Your task to perform on an android device: Do I have any events today? Image 0: 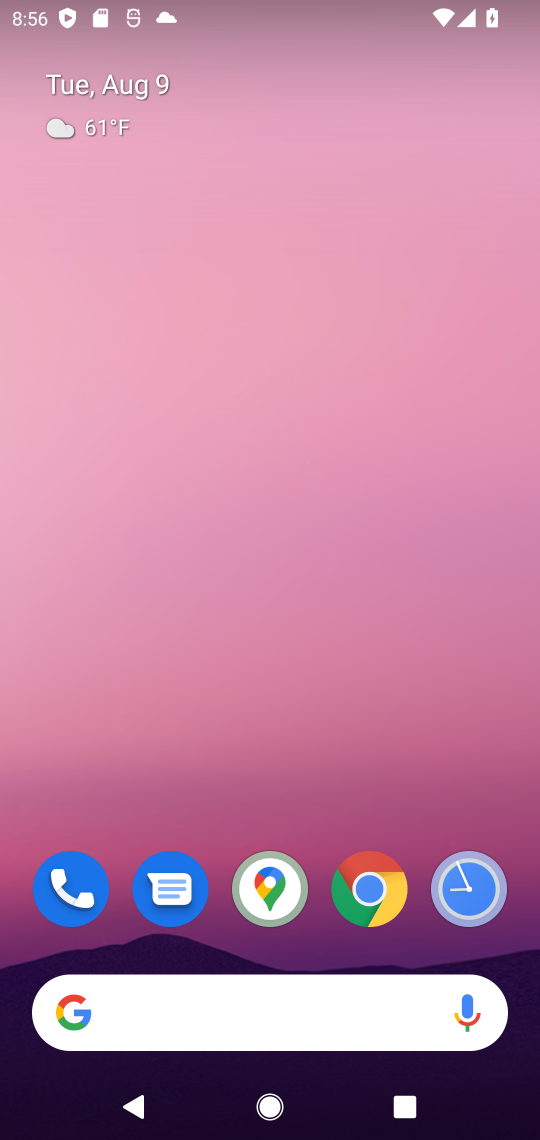
Step 0: drag from (295, 971) to (463, 0)
Your task to perform on an android device: Do I have any events today? Image 1: 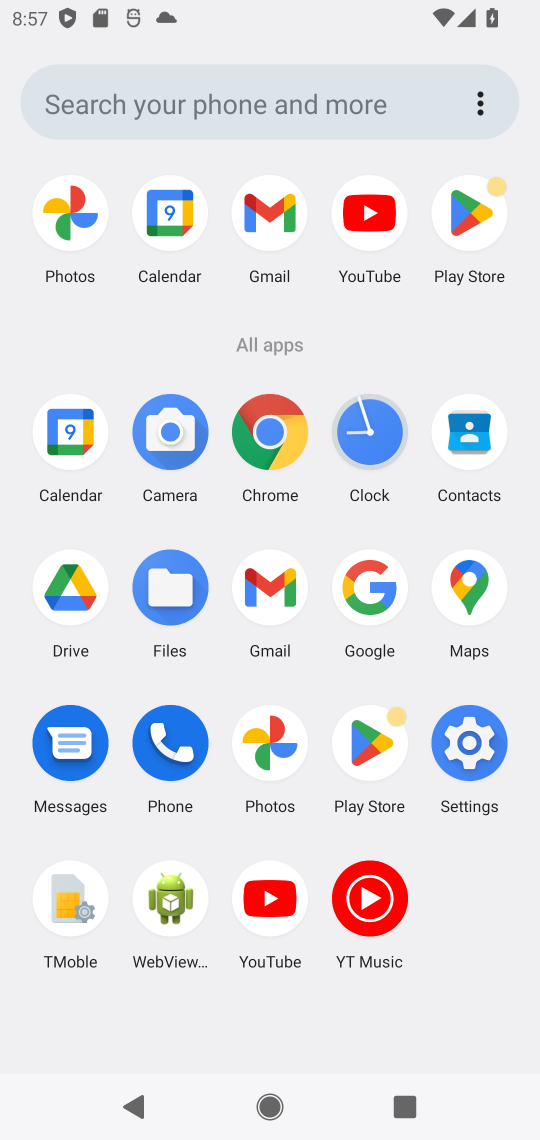
Step 1: click (85, 458)
Your task to perform on an android device: Do I have any events today? Image 2: 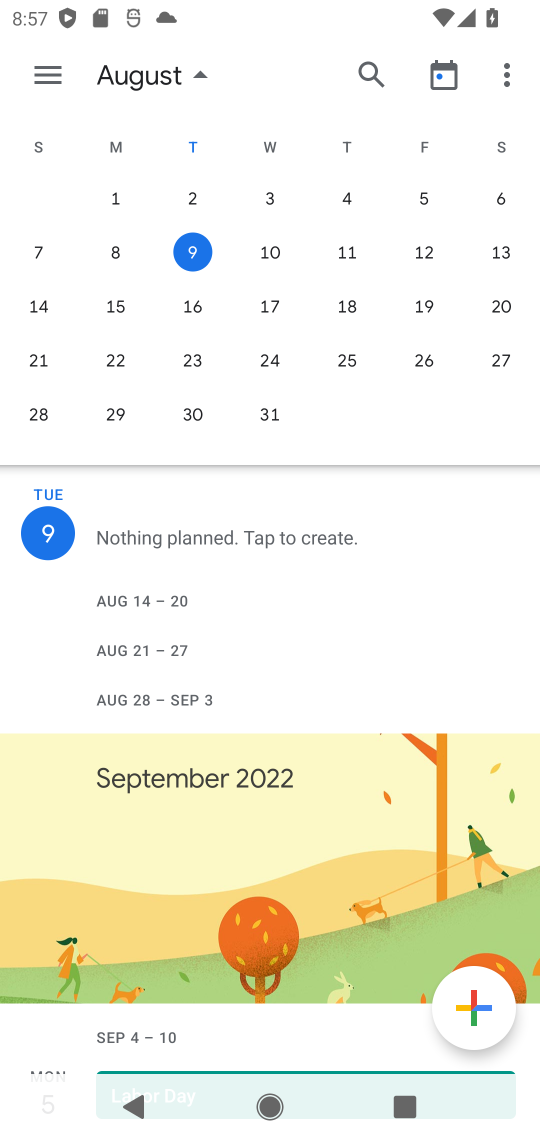
Step 2: task complete